Your task to perform on an android device: Open the phone app and click the voicemail tab. Image 0: 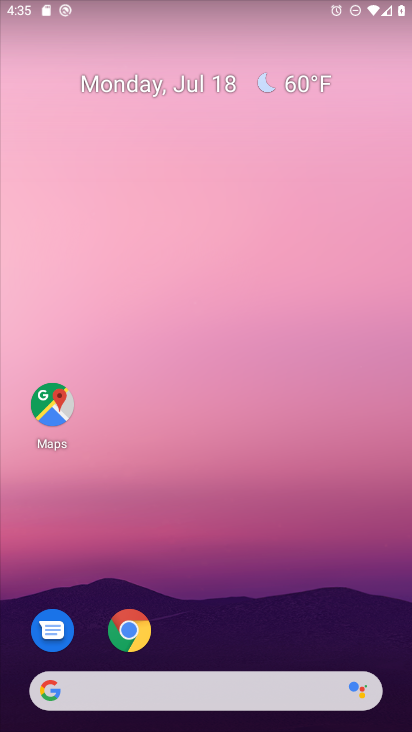
Step 0: drag from (262, 582) to (234, 129)
Your task to perform on an android device: Open the phone app and click the voicemail tab. Image 1: 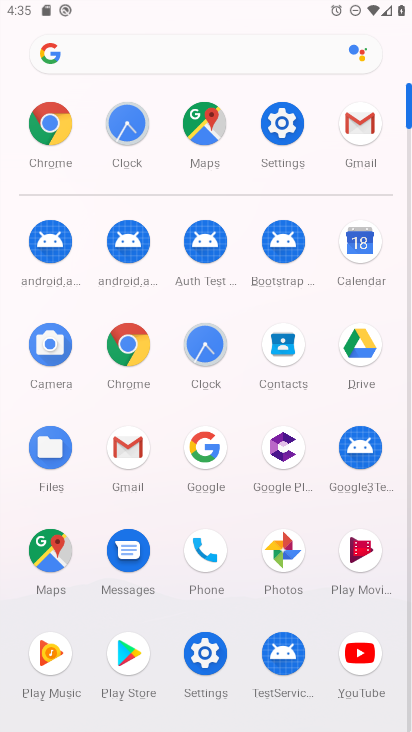
Step 1: click (203, 560)
Your task to perform on an android device: Open the phone app and click the voicemail tab. Image 2: 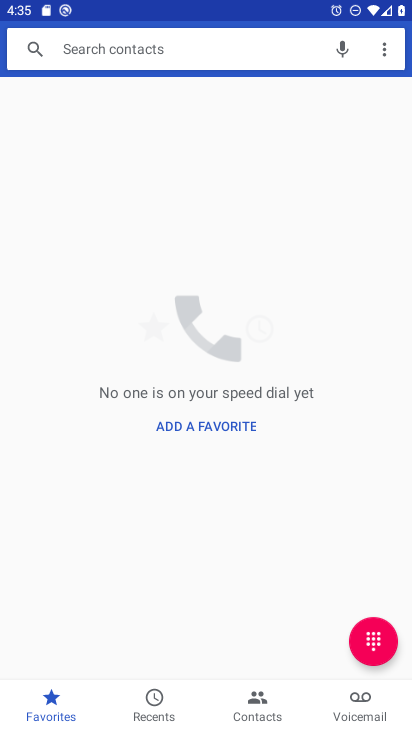
Step 2: click (361, 709)
Your task to perform on an android device: Open the phone app and click the voicemail tab. Image 3: 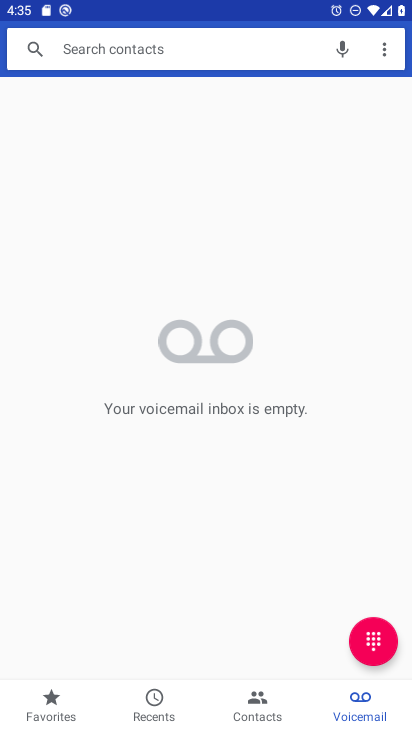
Step 3: task complete